Your task to perform on an android device: Show me the alarms in the clock app Image 0: 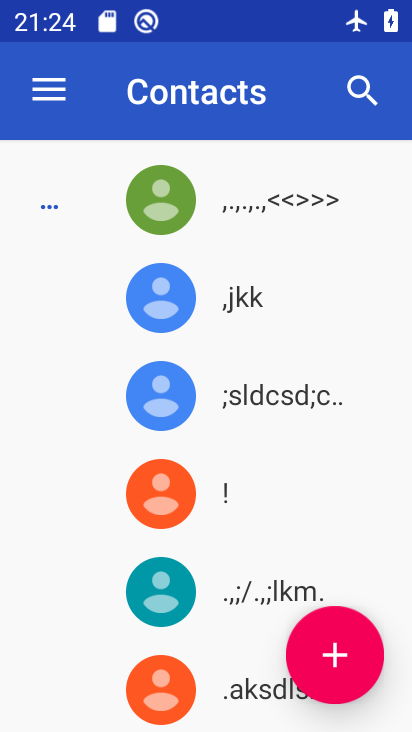
Step 0: press home button
Your task to perform on an android device: Show me the alarms in the clock app Image 1: 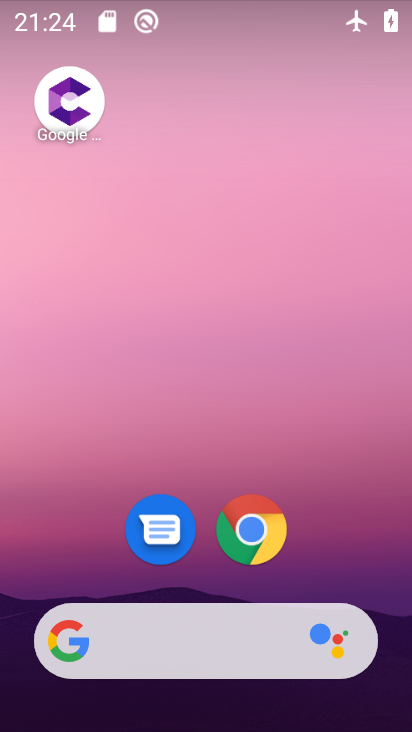
Step 1: drag from (75, 596) to (169, 59)
Your task to perform on an android device: Show me the alarms in the clock app Image 2: 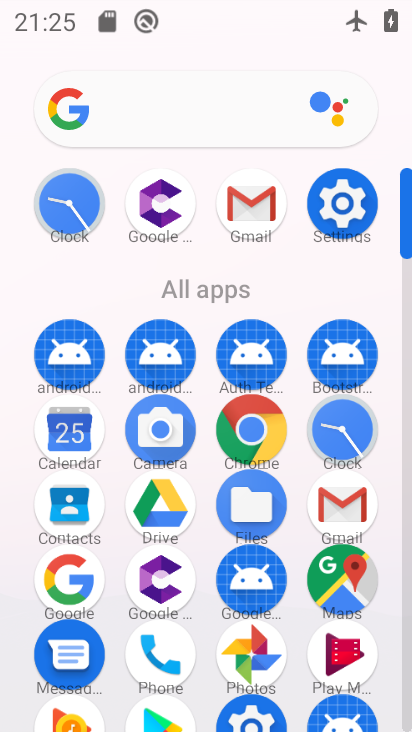
Step 2: click (354, 458)
Your task to perform on an android device: Show me the alarms in the clock app Image 3: 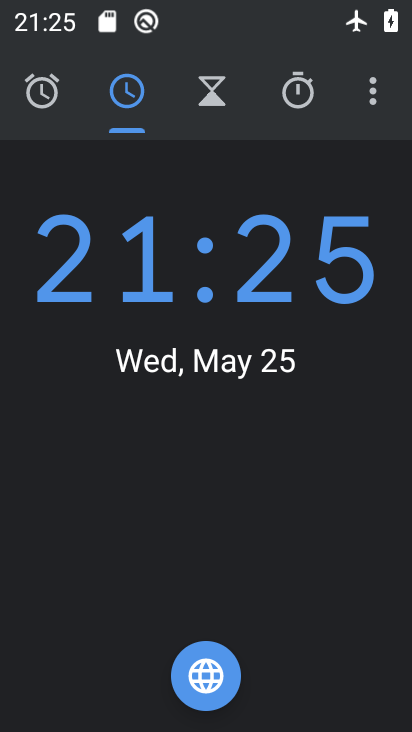
Step 3: click (39, 102)
Your task to perform on an android device: Show me the alarms in the clock app Image 4: 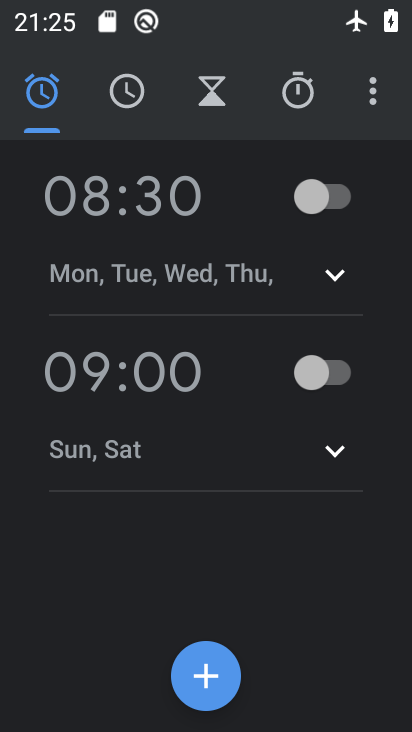
Step 4: task complete